Your task to perform on an android device: Open Google Maps and go to "Timeline" Image 0: 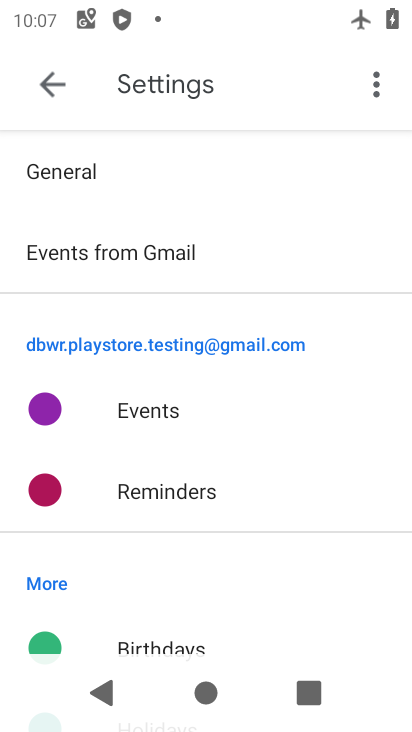
Step 0: press home button
Your task to perform on an android device: Open Google Maps and go to "Timeline" Image 1: 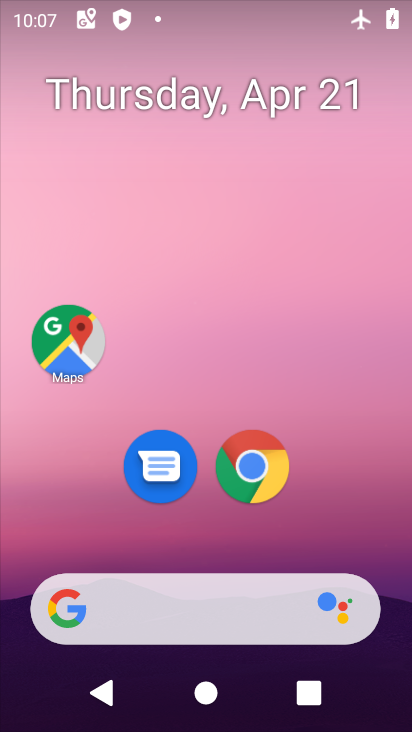
Step 1: drag from (359, 473) to (308, 90)
Your task to perform on an android device: Open Google Maps and go to "Timeline" Image 2: 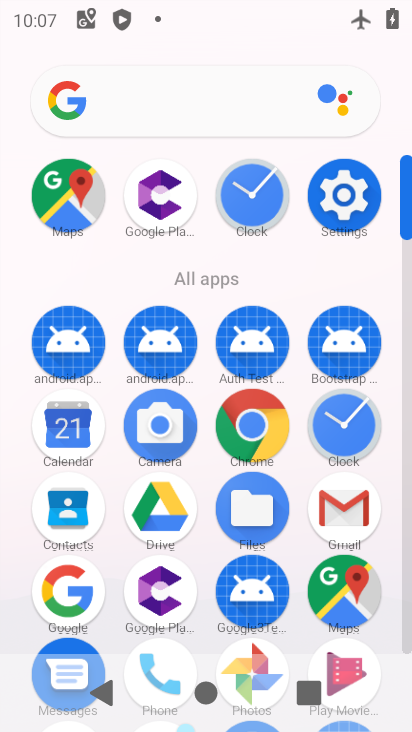
Step 2: click (336, 578)
Your task to perform on an android device: Open Google Maps and go to "Timeline" Image 3: 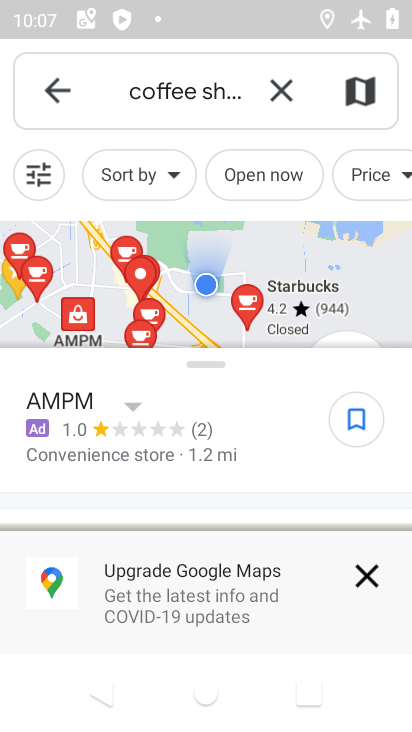
Step 3: click (63, 94)
Your task to perform on an android device: Open Google Maps and go to "Timeline" Image 4: 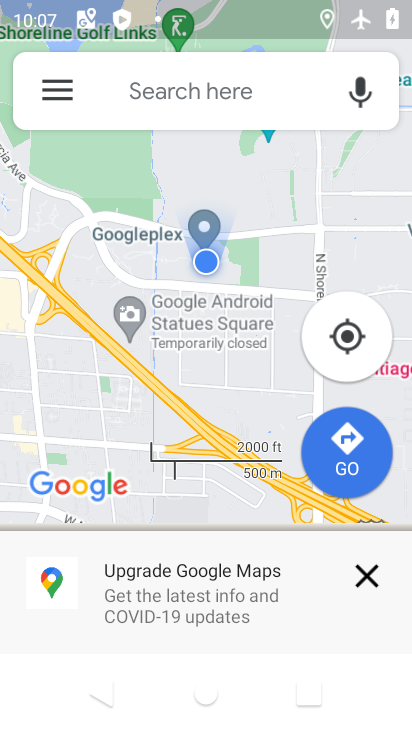
Step 4: click (63, 94)
Your task to perform on an android device: Open Google Maps and go to "Timeline" Image 5: 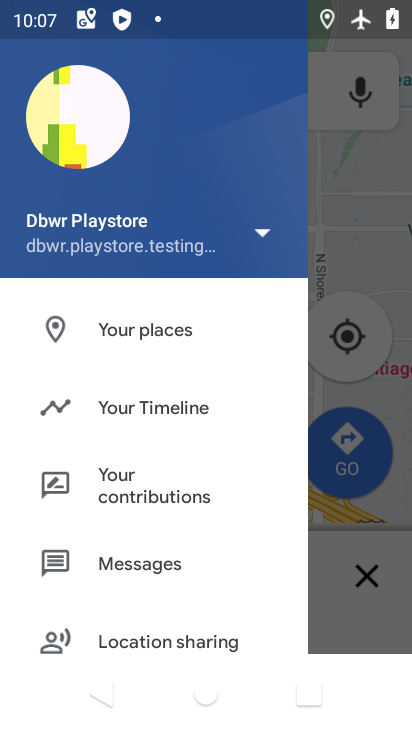
Step 5: click (181, 411)
Your task to perform on an android device: Open Google Maps and go to "Timeline" Image 6: 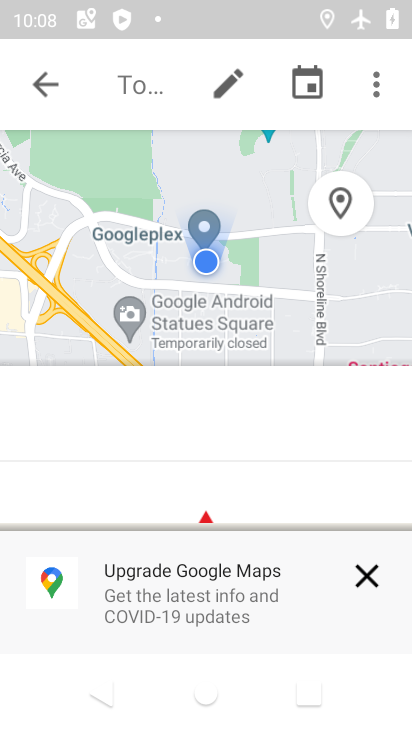
Step 6: task complete